Your task to perform on an android device: Open Chrome and go to settings Image 0: 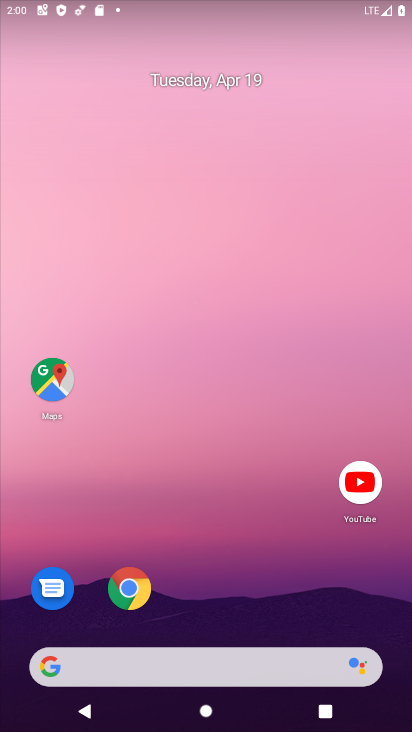
Step 0: click (117, 613)
Your task to perform on an android device: Open Chrome and go to settings Image 1: 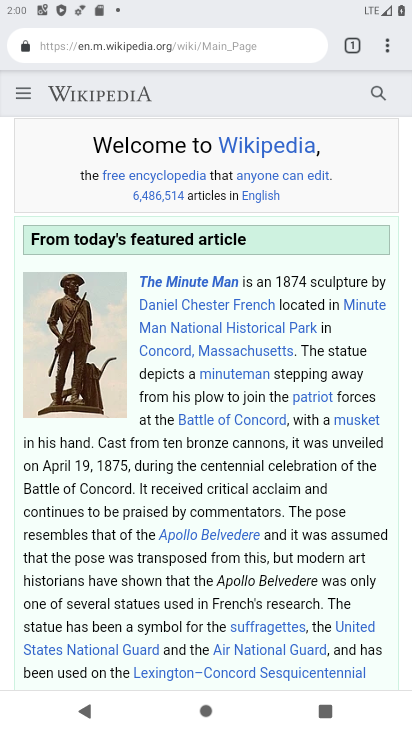
Step 1: click (386, 55)
Your task to perform on an android device: Open Chrome and go to settings Image 2: 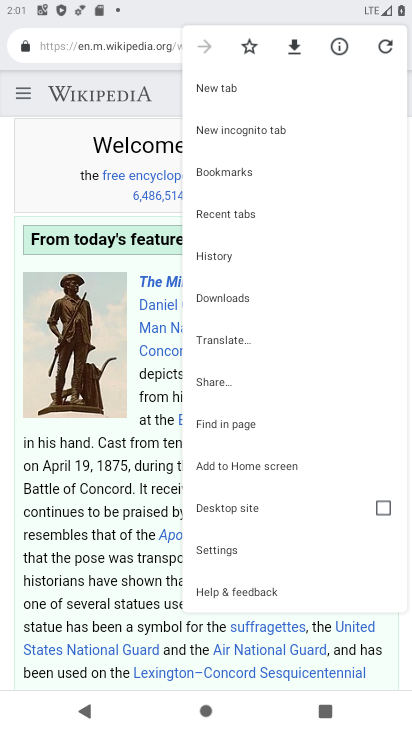
Step 2: click (214, 553)
Your task to perform on an android device: Open Chrome and go to settings Image 3: 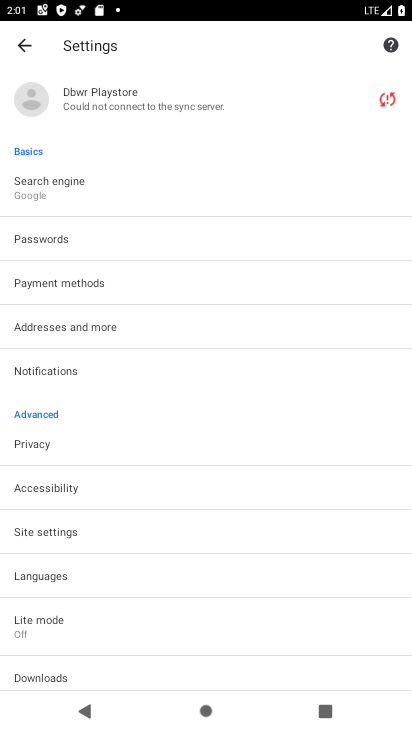
Step 3: task complete